Your task to perform on an android device: Go to eBay Image 0: 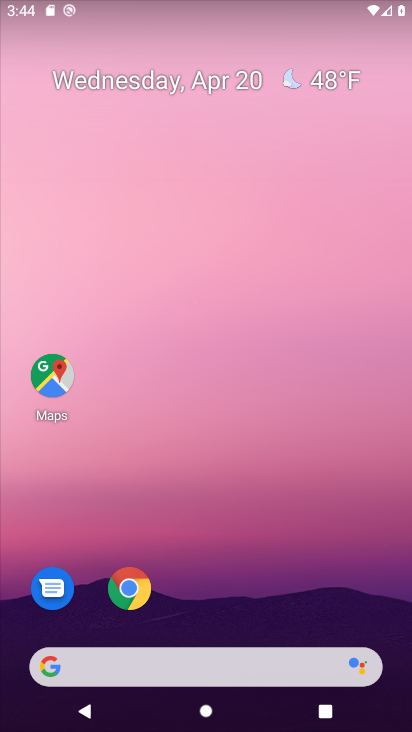
Step 0: drag from (288, 543) to (299, 164)
Your task to perform on an android device: Go to eBay Image 1: 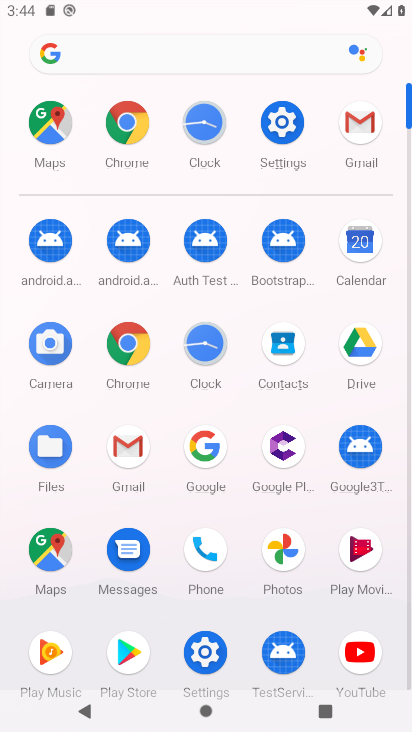
Step 1: click (132, 350)
Your task to perform on an android device: Go to eBay Image 2: 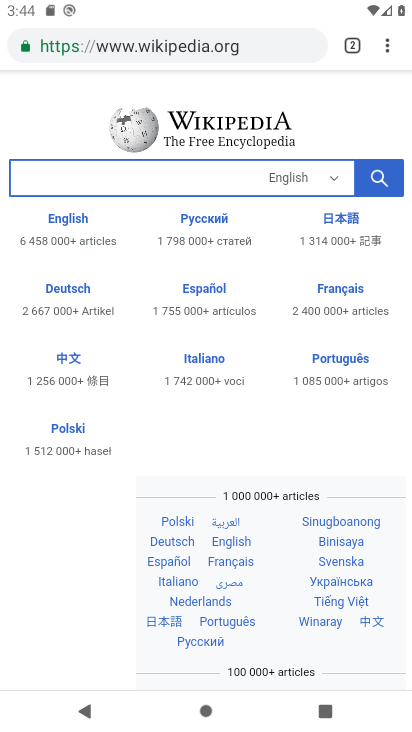
Step 2: click (260, 46)
Your task to perform on an android device: Go to eBay Image 3: 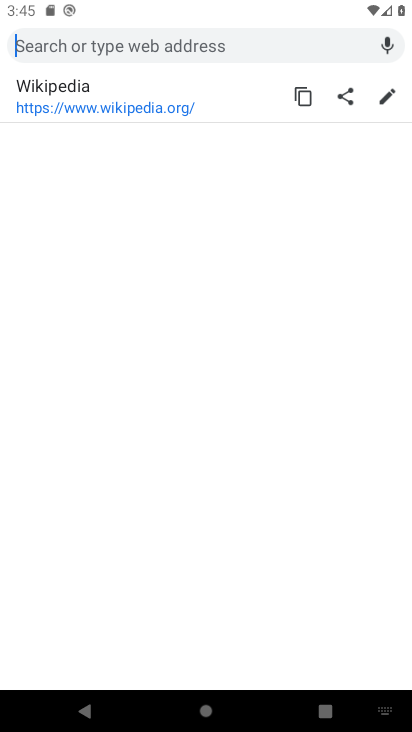
Step 3: type "ebay"
Your task to perform on an android device: Go to eBay Image 4: 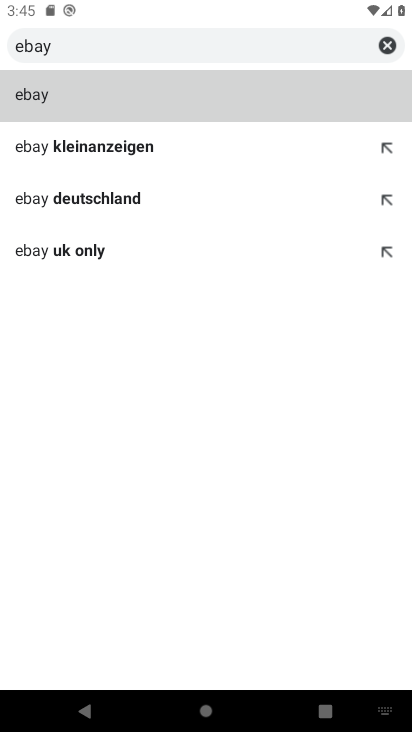
Step 4: click (204, 107)
Your task to perform on an android device: Go to eBay Image 5: 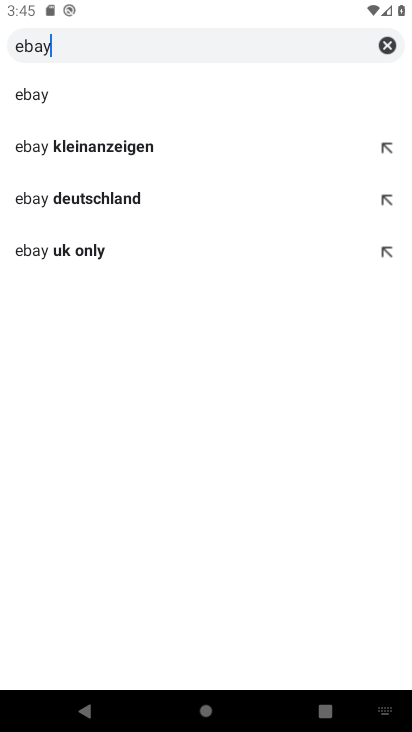
Step 5: click (71, 98)
Your task to perform on an android device: Go to eBay Image 6: 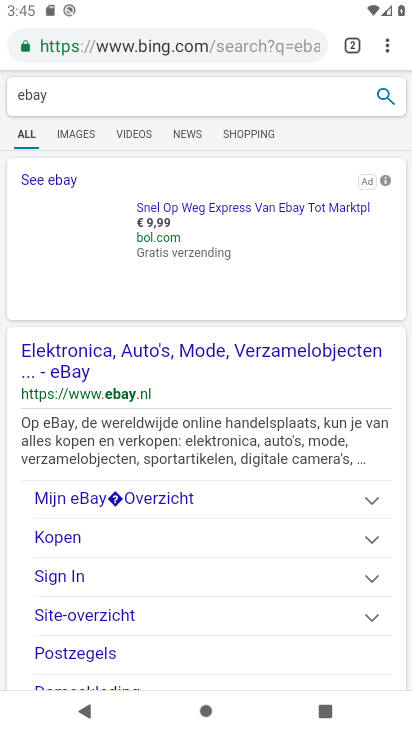
Step 6: task complete